Your task to perform on an android device: turn on the 24-hour format for clock Image 0: 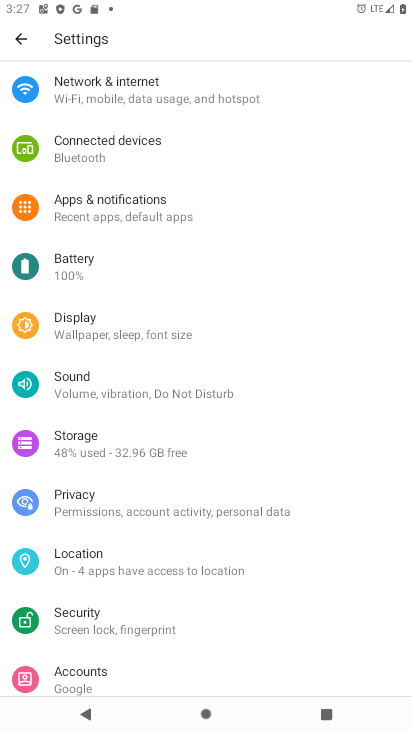
Step 0: press home button
Your task to perform on an android device: turn on the 24-hour format for clock Image 1: 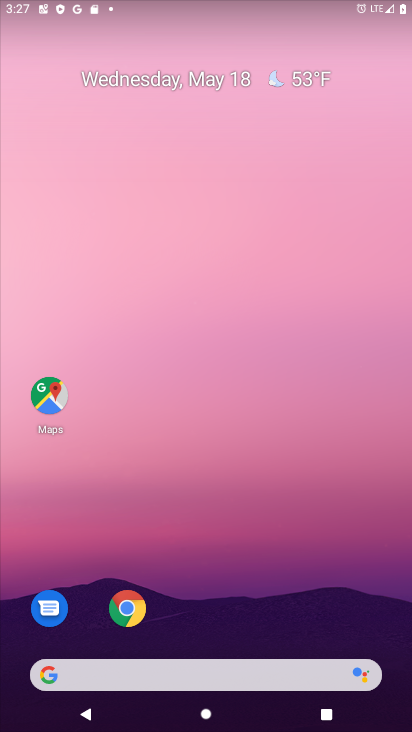
Step 1: drag from (250, 623) to (246, 0)
Your task to perform on an android device: turn on the 24-hour format for clock Image 2: 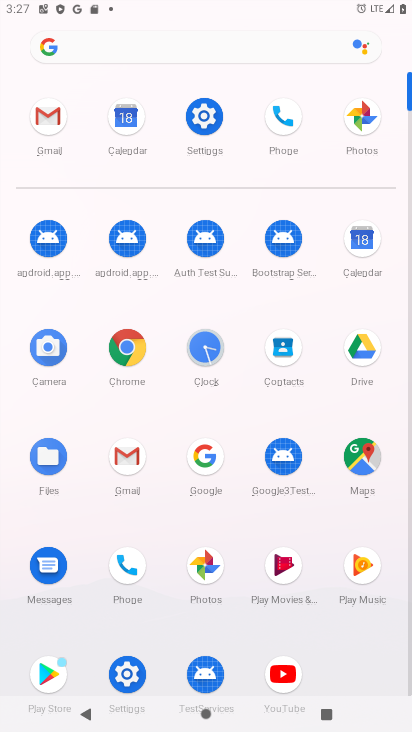
Step 2: click (207, 344)
Your task to perform on an android device: turn on the 24-hour format for clock Image 3: 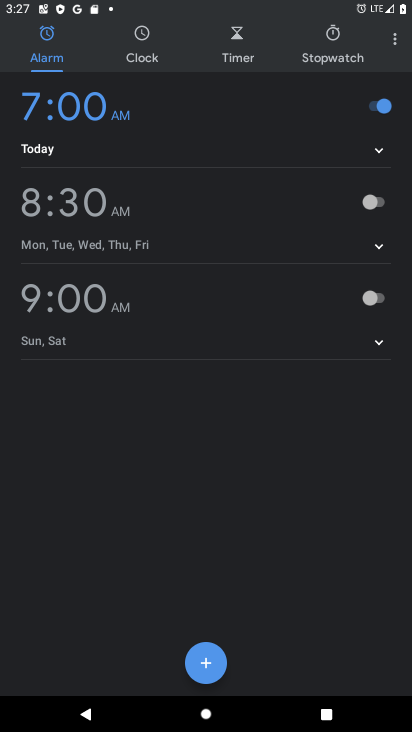
Step 3: click (390, 46)
Your task to perform on an android device: turn on the 24-hour format for clock Image 4: 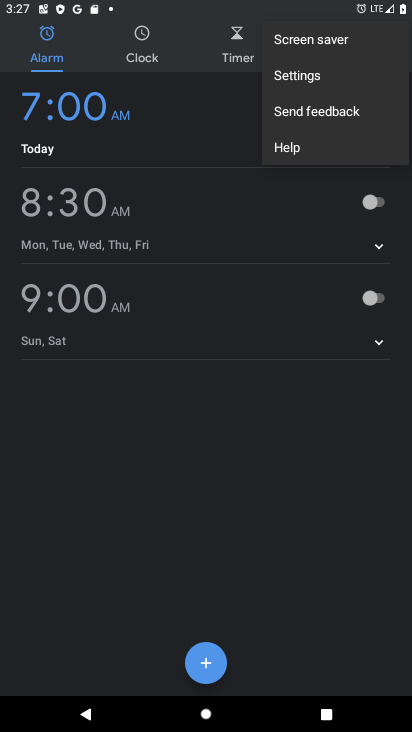
Step 4: click (321, 80)
Your task to perform on an android device: turn on the 24-hour format for clock Image 5: 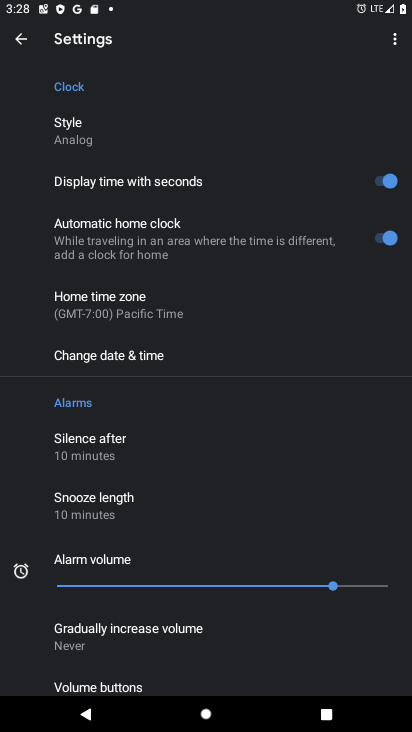
Step 5: click (149, 364)
Your task to perform on an android device: turn on the 24-hour format for clock Image 6: 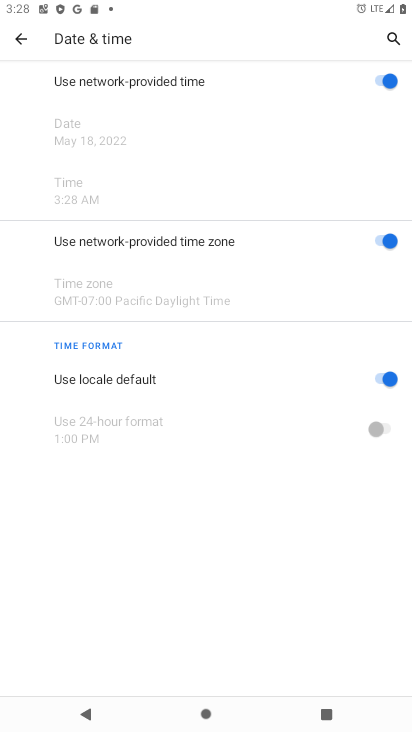
Step 6: click (388, 383)
Your task to perform on an android device: turn on the 24-hour format for clock Image 7: 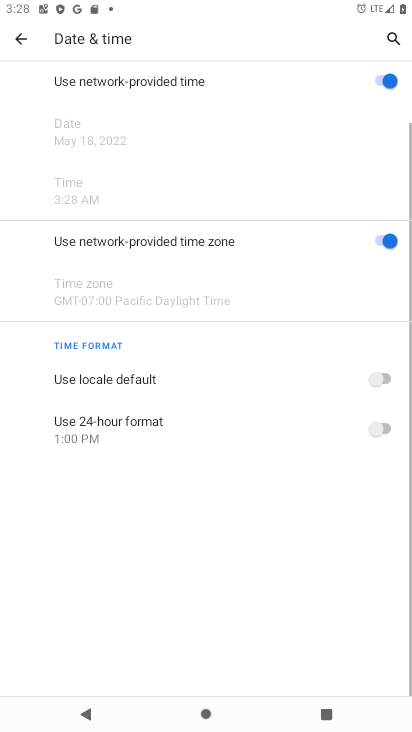
Step 7: click (376, 425)
Your task to perform on an android device: turn on the 24-hour format for clock Image 8: 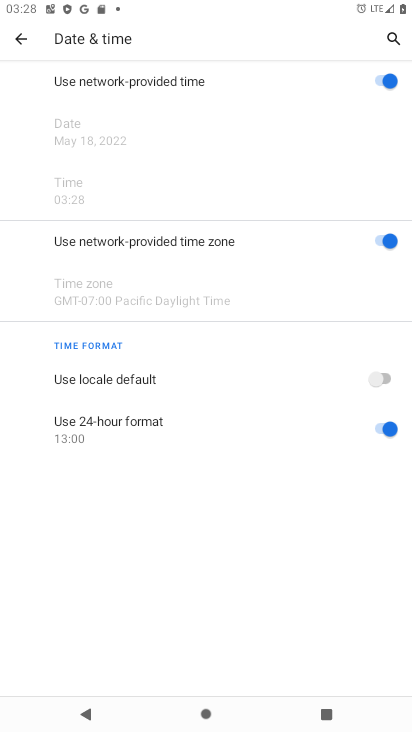
Step 8: task complete